Your task to perform on an android device: turn on location history Image 0: 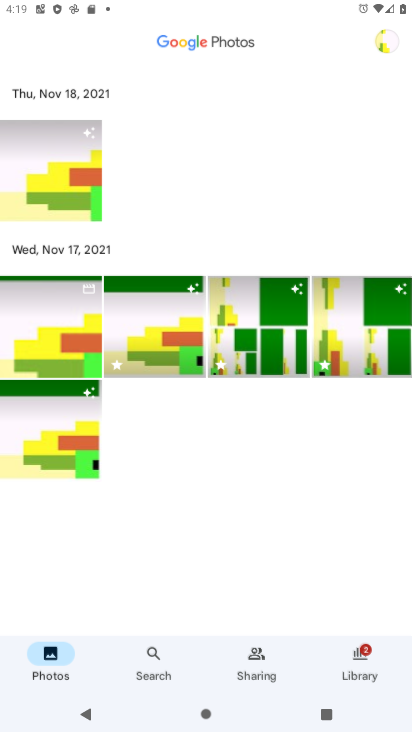
Step 0: drag from (252, 629) to (261, 481)
Your task to perform on an android device: turn on location history Image 1: 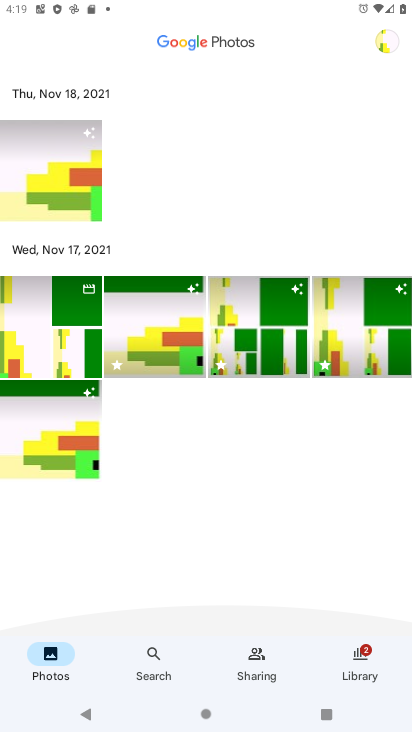
Step 1: press home button
Your task to perform on an android device: turn on location history Image 2: 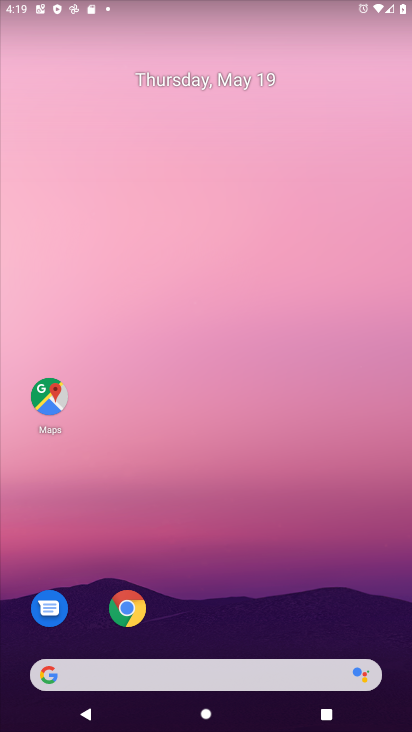
Step 2: drag from (254, 583) to (214, 75)
Your task to perform on an android device: turn on location history Image 3: 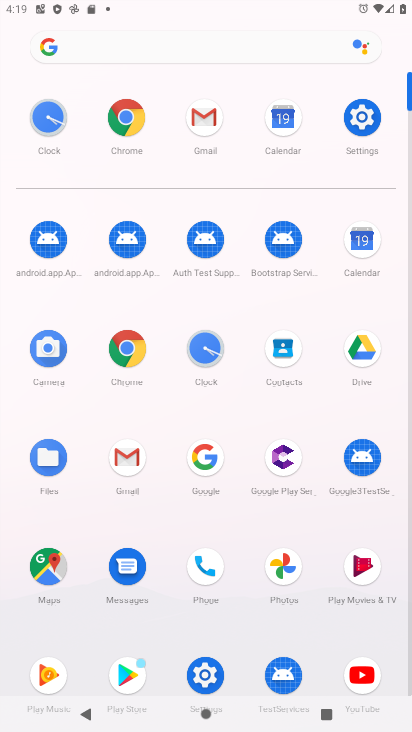
Step 3: click (375, 141)
Your task to perform on an android device: turn on location history Image 4: 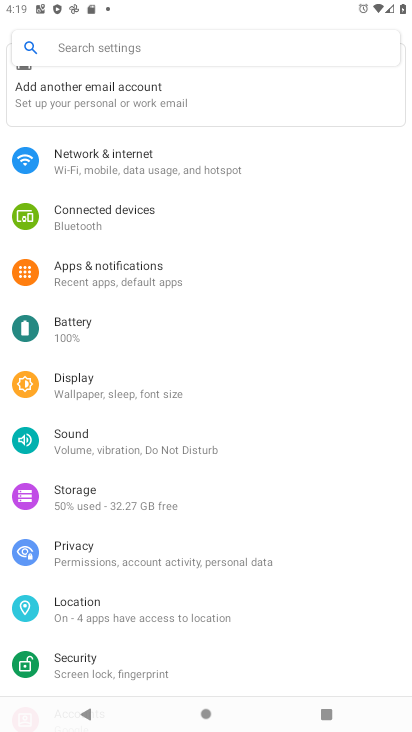
Step 4: click (161, 626)
Your task to perform on an android device: turn on location history Image 5: 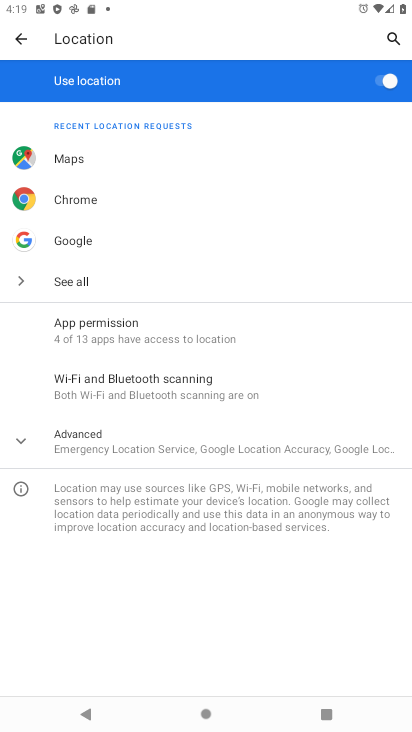
Step 5: click (199, 434)
Your task to perform on an android device: turn on location history Image 6: 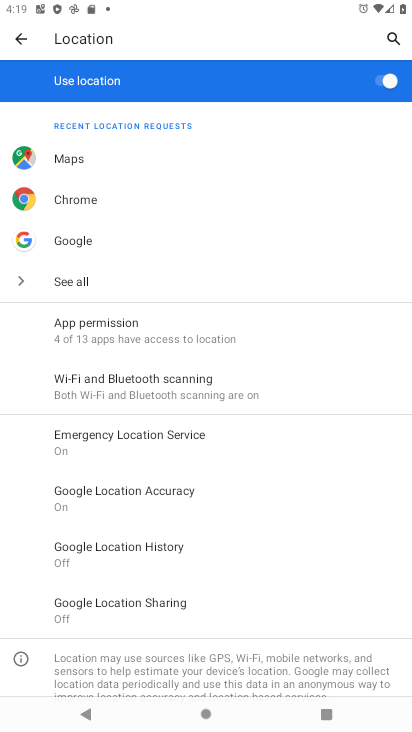
Step 6: click (159, 542)
Your task to perform on an android device: turn on location history Image 7: 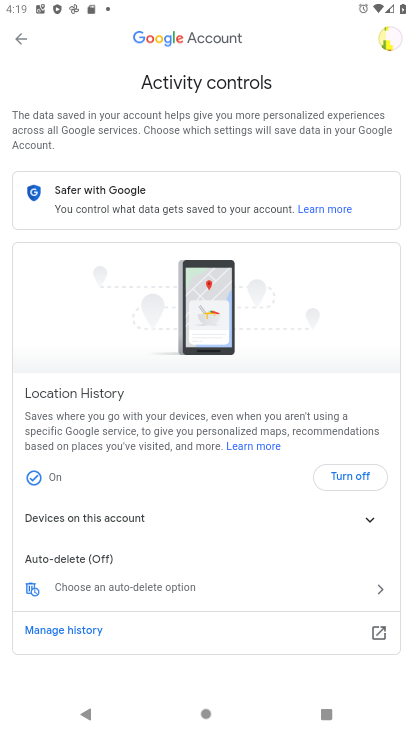
Step 7: click (45, 474)
Your task to perform on an android device: turn on location history Image 8: 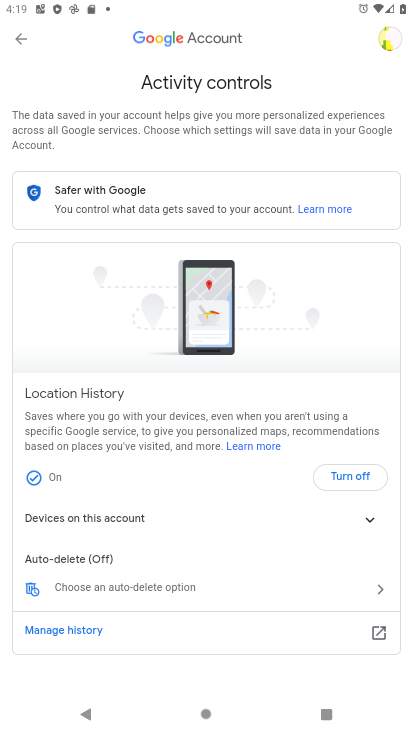
Step 8: click (45, 474)
Your task to perform on an android device: turn on location history Image 9: 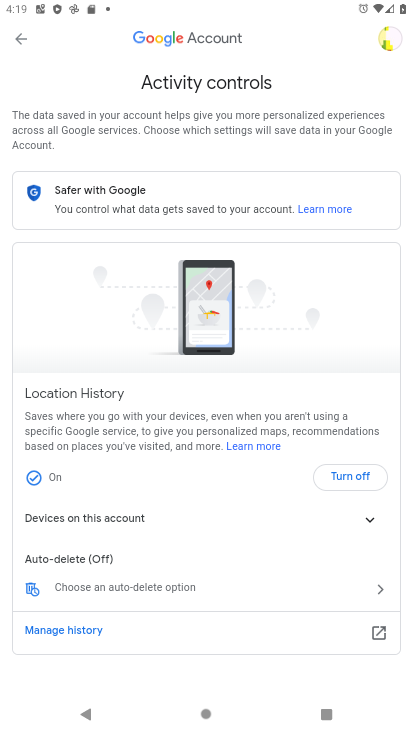
Step 9: task complete